Your task to perform on an android device: turn smart compose on in the gmail app Image 0: 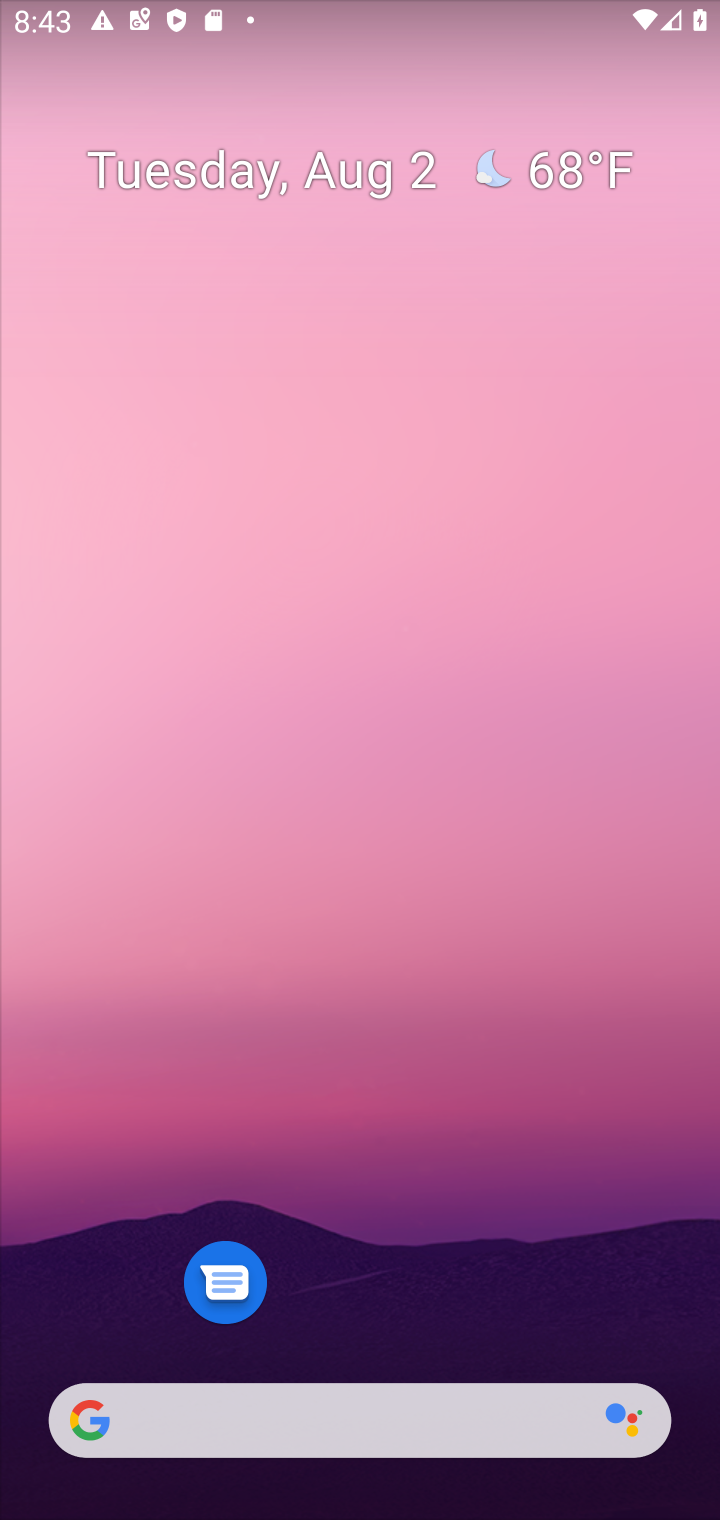
Step 0: drag from (322, 1303) to (303, 71)
Your task to perform on an android device: turn smart compose on in the gmail app Image 1: 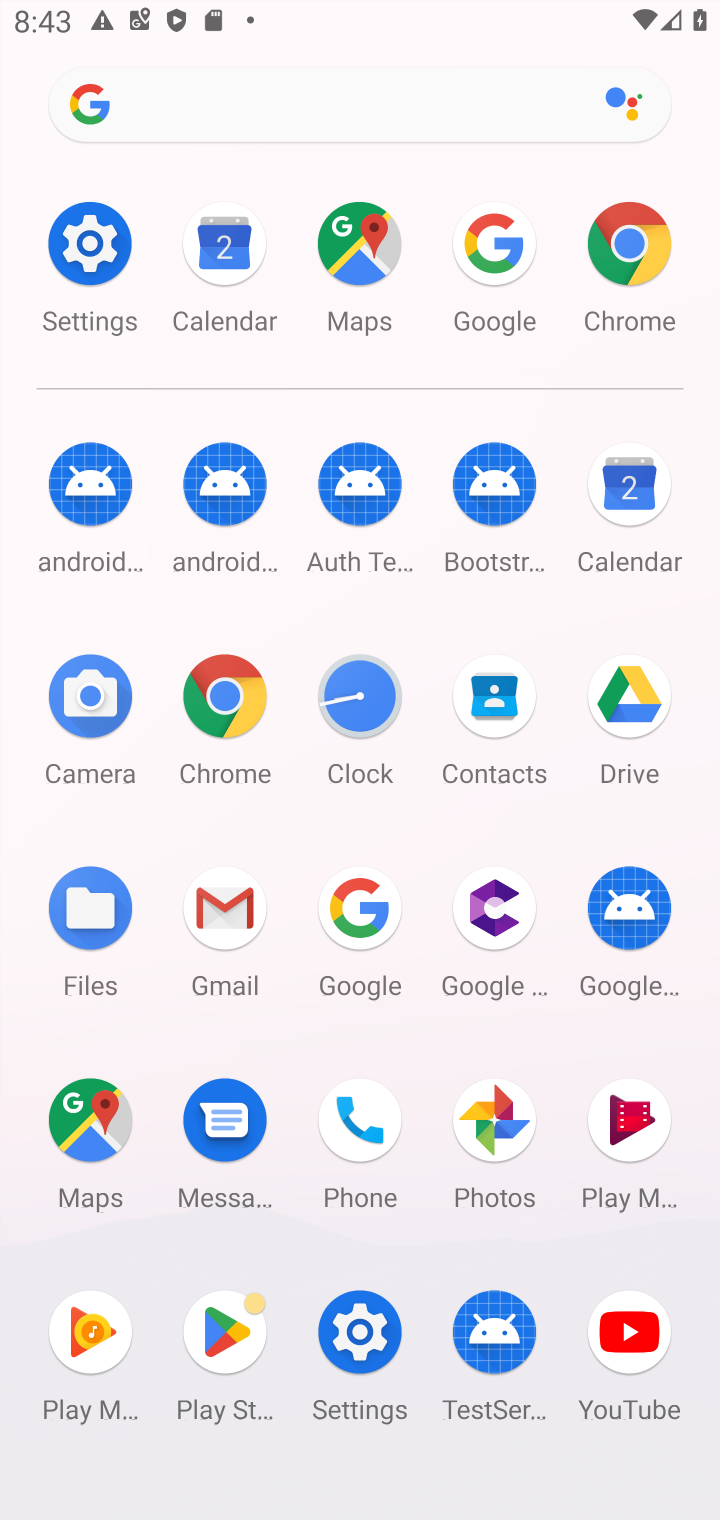
Step 1: click (222, 922)
Your task to perform on an android device: turn smart compose on in the gmail app Image 2: 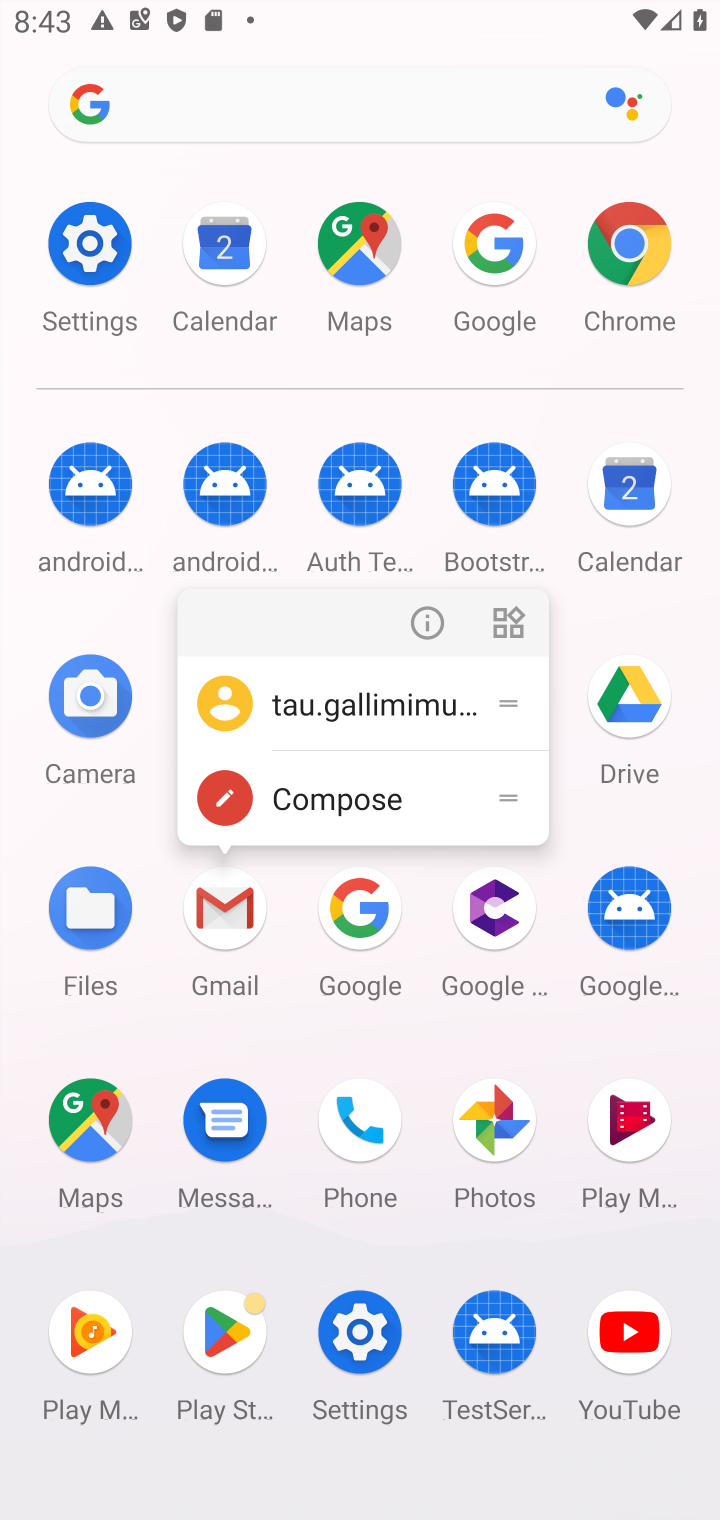
Step 2: click (209, 904)
Your task to perform on an android device: turn smart compose on in the gmail app Image 3: 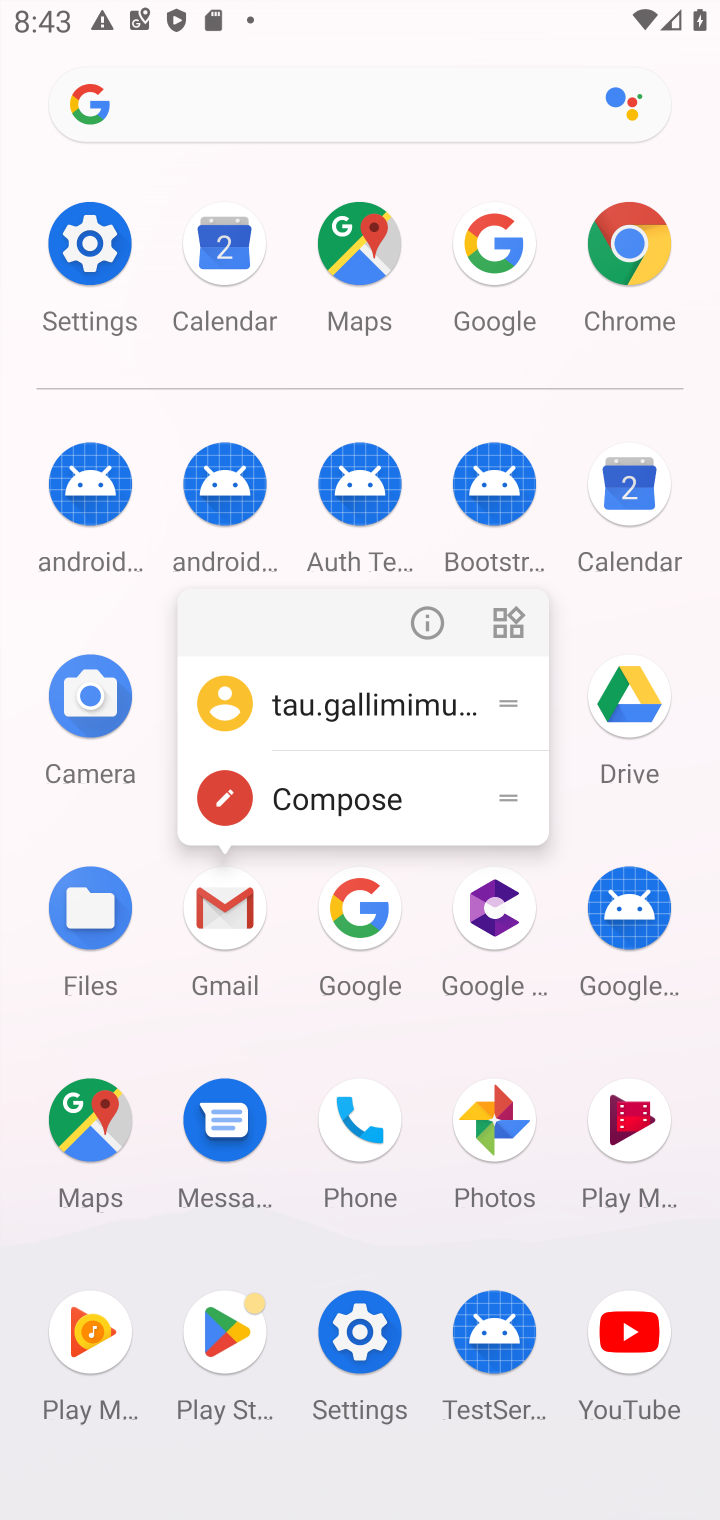
Step 3: click (224, 887)
Your task to perform on an android device: turn smart compose on in the gmail app Image 4: 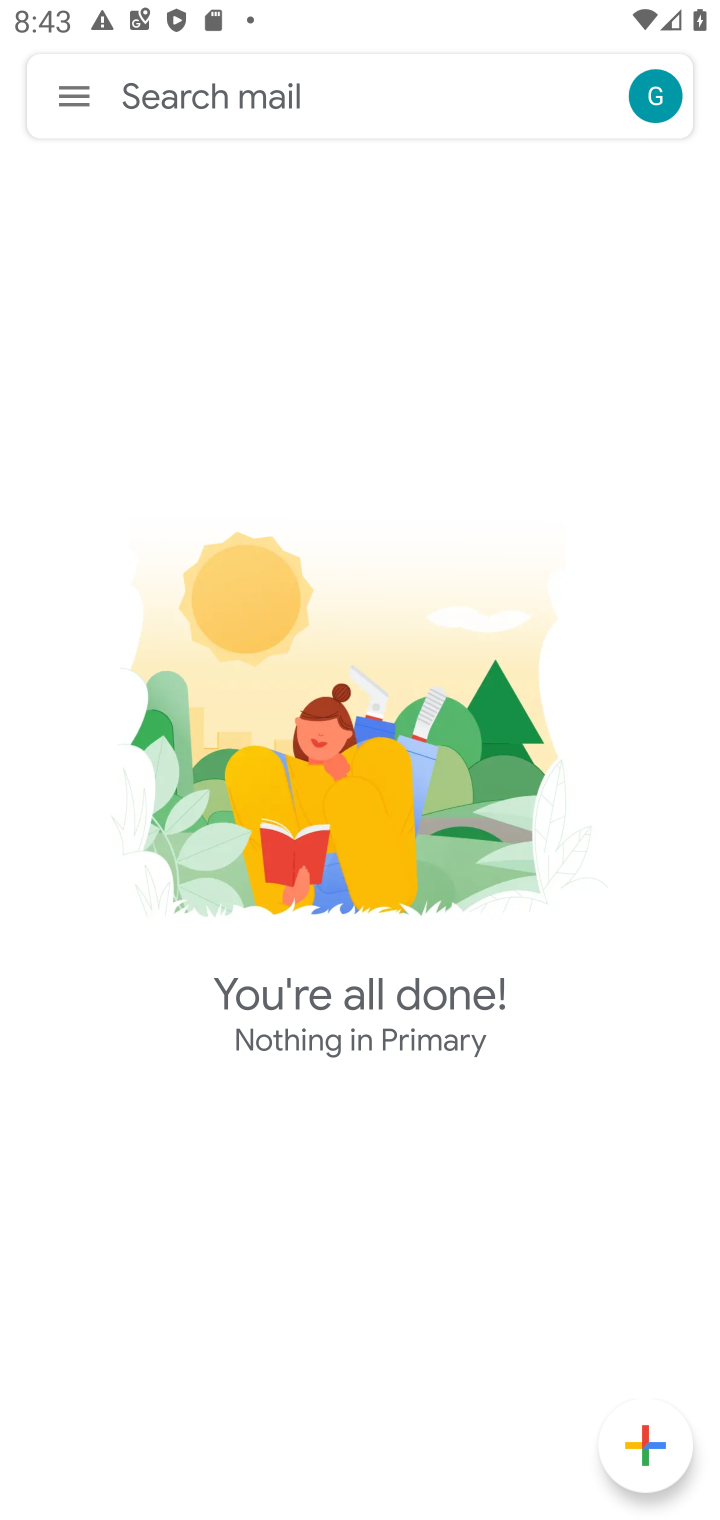
Step 4: click (49, 94)
Your task to perform on an android device: turn smart compose on in the gmail app Image 5: 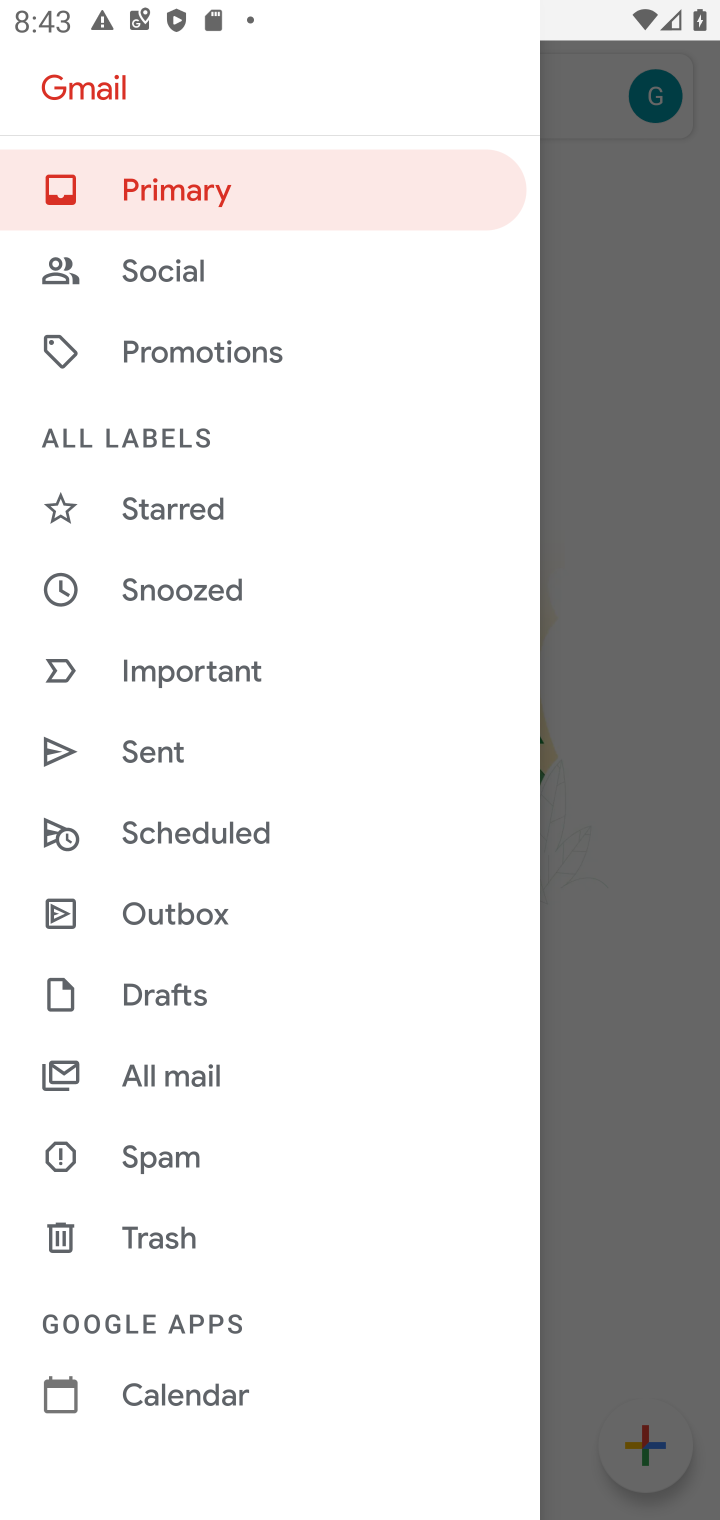
Step 5: drag from (135, 1274) to (136, 420)
Your task to perform on an android device: turn smart compose on in the gmail app Image 6: 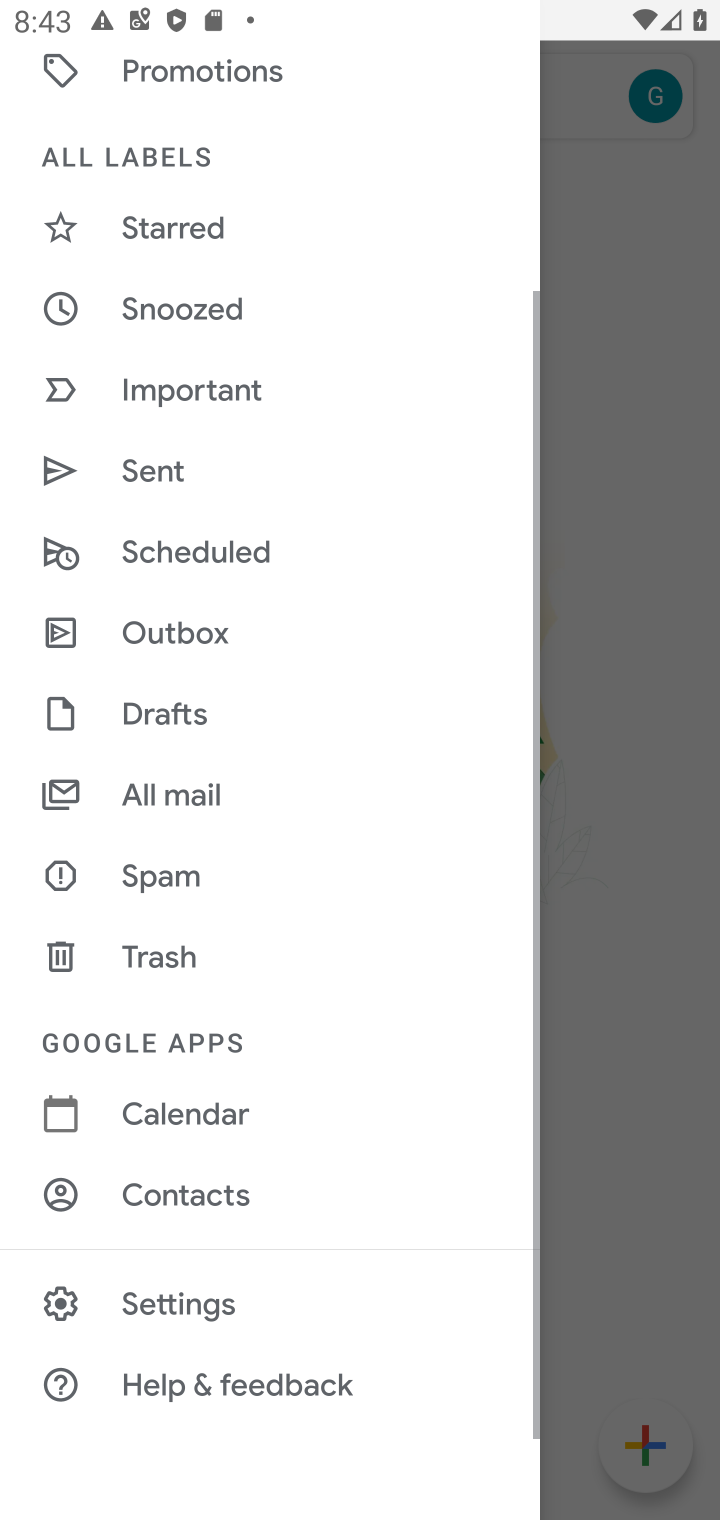
Step 6: click (152, 1274)
Your task to perform on an android device: turn smart compose on in the gmail app Image 7: 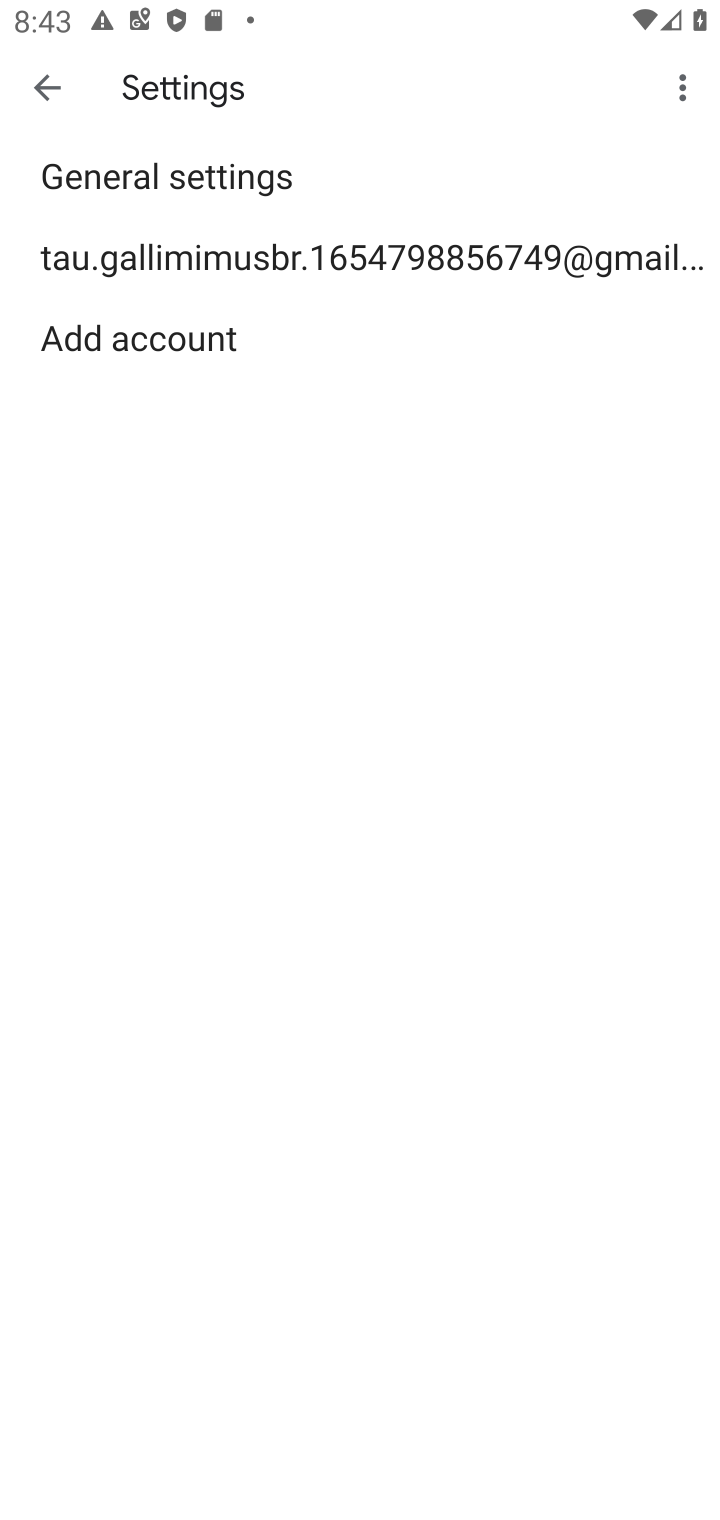
Step 7: click (55, 254)
Your task to perform on an android device: turn smart compose on in the gmail app Image 8: 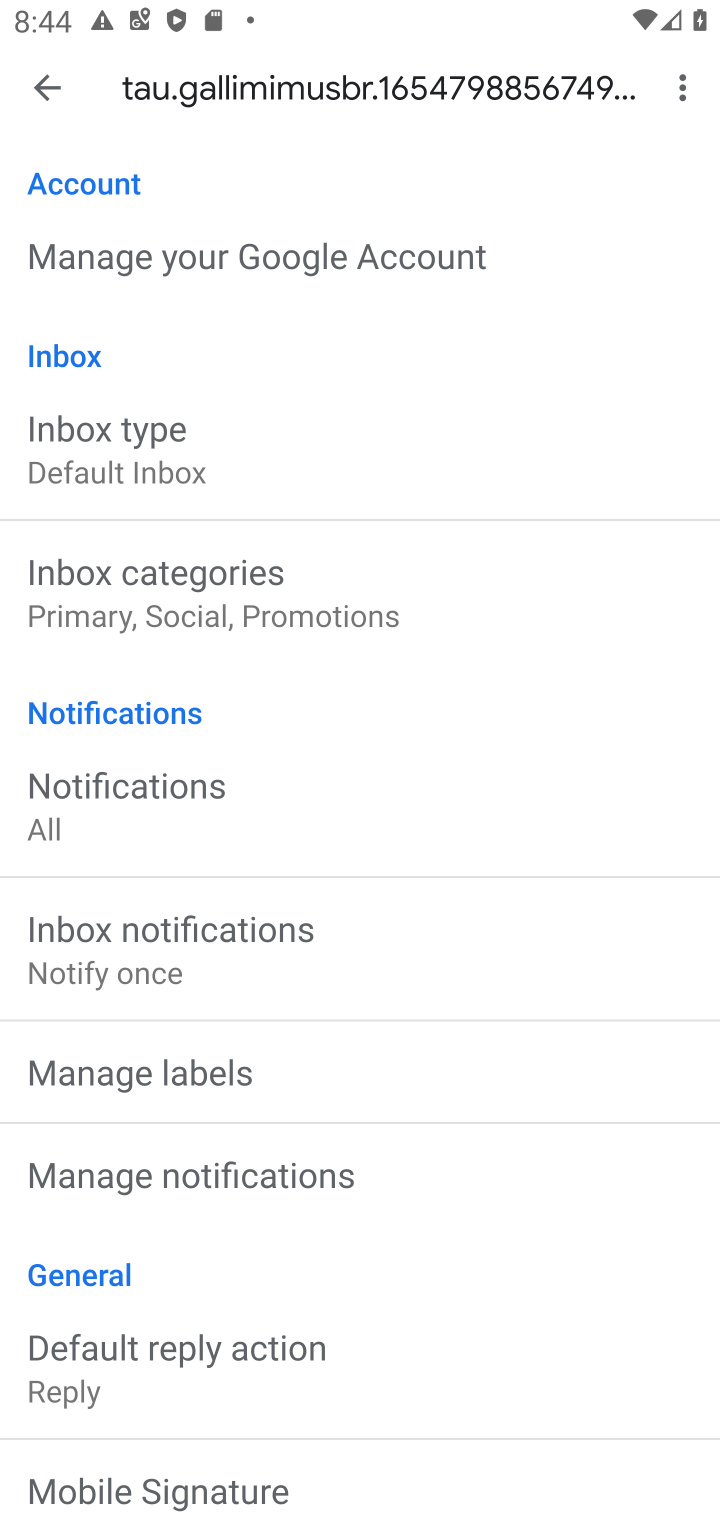
Step 8: task complete